Your task to perform on an android device: Go to accessibility settings Image 0: 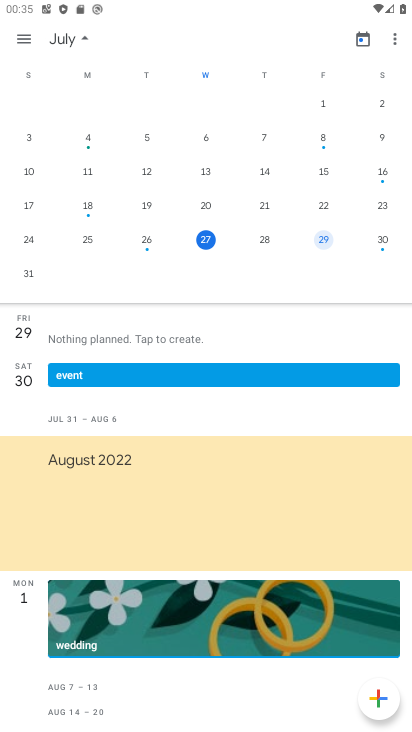
Step 0: press back button
Your task to perform on an android device: Go to accessibility settings Image 1: 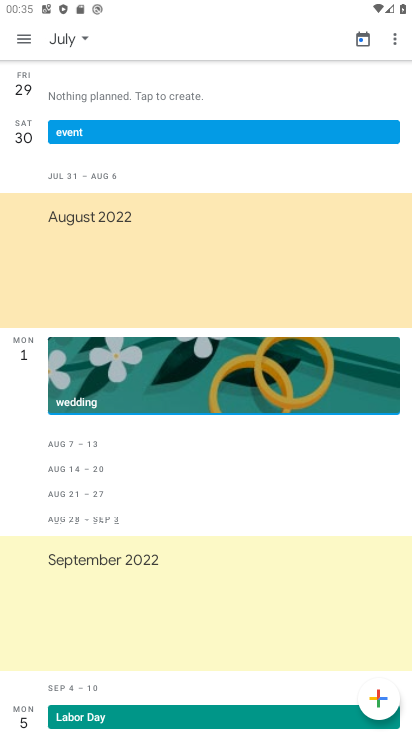
Step 1: press back button
Your task to perform on an android device: Go to accessibility settings Image 2: 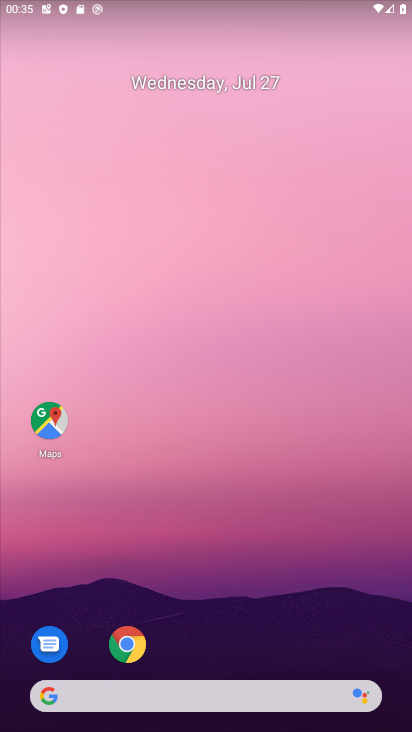
Step 2: drag from (248, 606) to (261, 174)
Your task to perform on an android device: Go to accessibility settings Image 3: 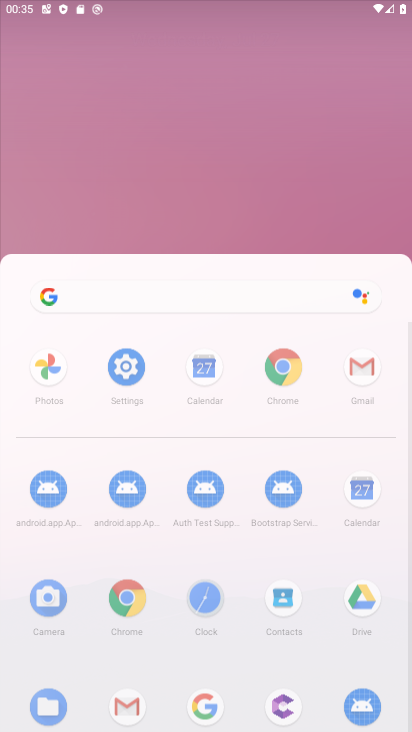
Step 3: drag from (290, 204) to (290, 80)
Your task to perform on an android device: Go to accessibility settings Image 4: 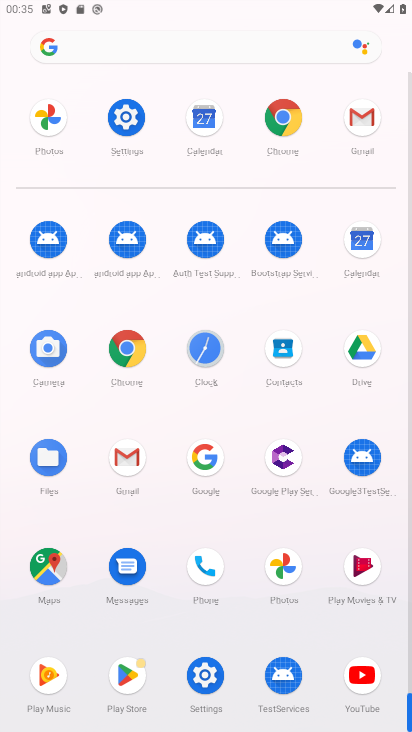
Step 4: click (277, 256)
Your task to perform on an android device: Go to accessibility settings Image 5: 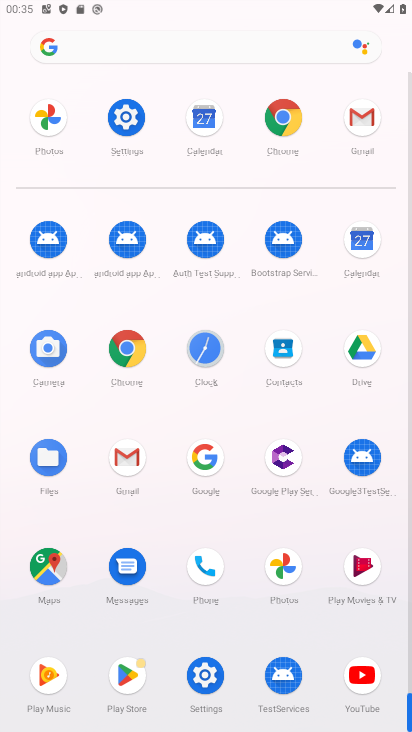
Step 5: click (210, 680)
Your task to perform on an android device: Go to accessibility settings Image 6: 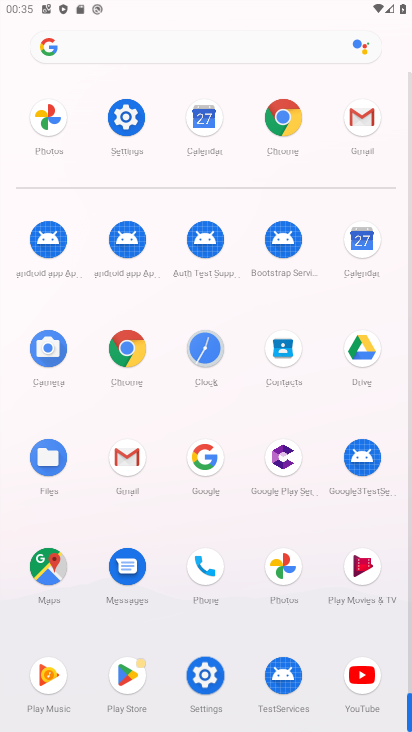
Step 6: click (204, 676)
Your task to perform on an android device: Go to accessibility settings Image 7: 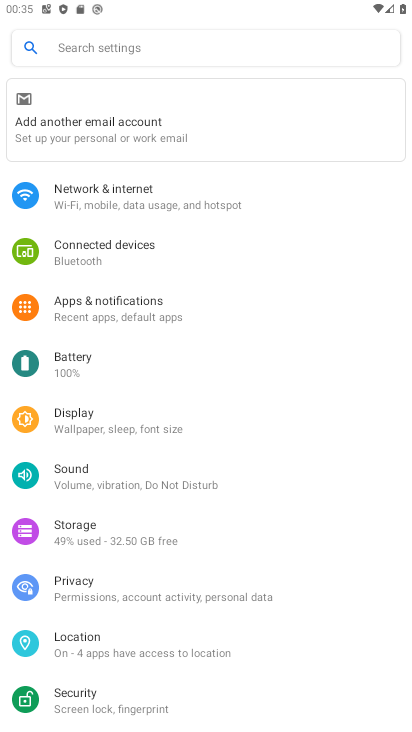
Step 7: drag from (76, 559) to (103, 255)
Your task to perform on an android device: Go to accessibility settings Image 8: 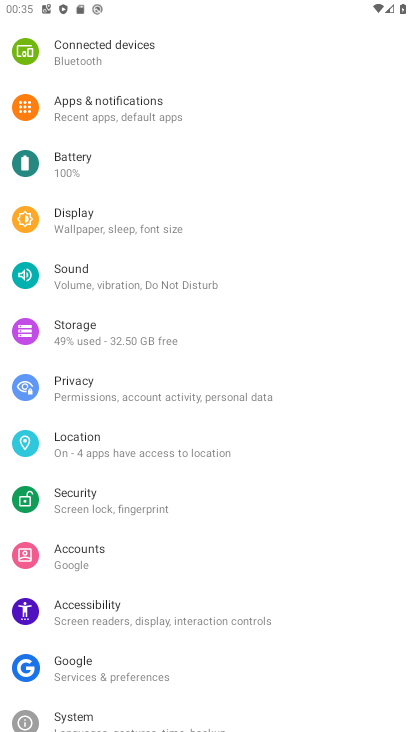
Step 8: drag from (142, 473) to (151, 226)
Your task to perform on an android device: Go to accessibility settings Image 9: 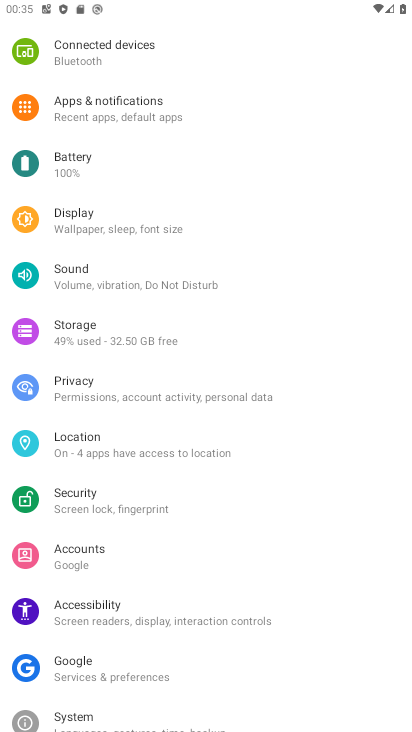
Step 9: drag from (151, 506) to (153, 298)
Your task to perform on an android device: Go to accessibility settings Image 10: 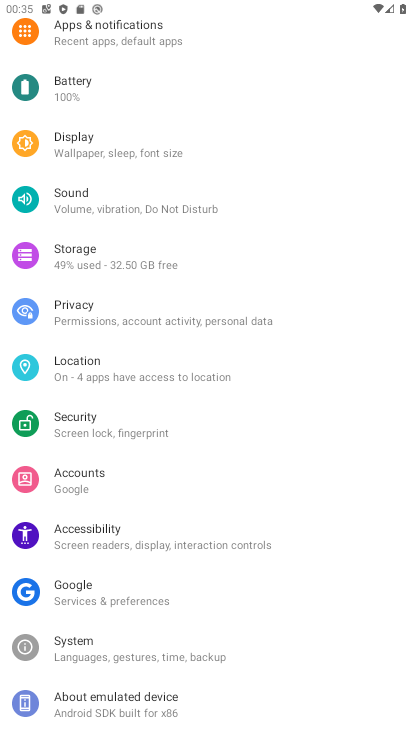
Step 10: click (72, 508)
Your task to perform on an android device: Go to accessibility settings Image 11: 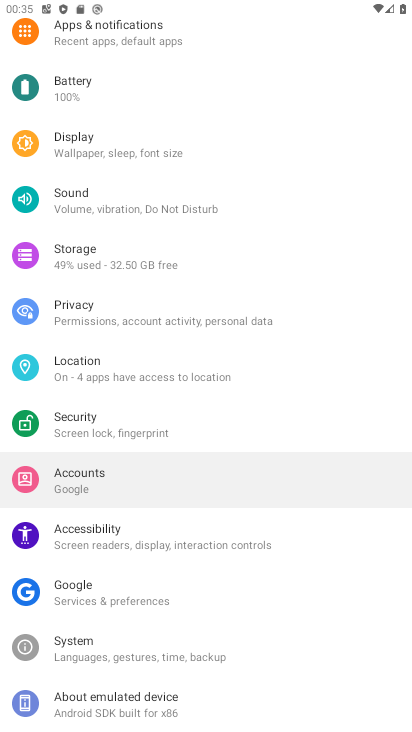
Step 11: click (74, 526)
Your task to perform on an android device: Go to accessibility settings Image 12: 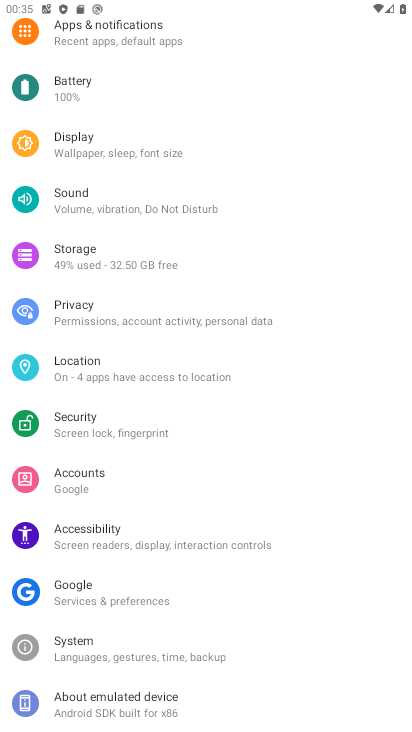
Step 12: click (75, 527)
Your task to perform on an android device: Go to accessibility settings Image 13: 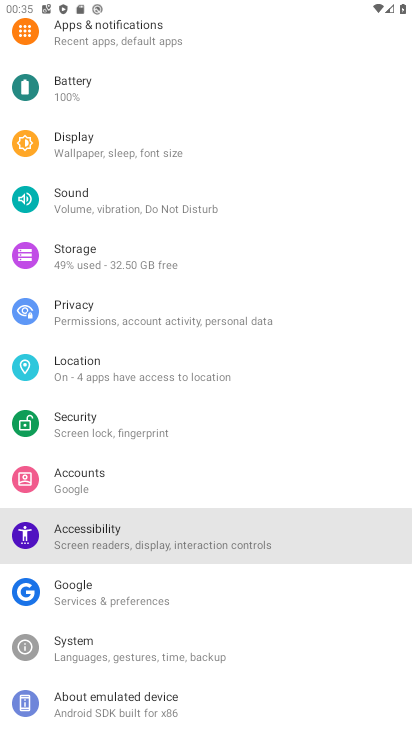
Step 13: click (77, 527)
Your task to perform on an android device: Go to accessibility settings Image 14: 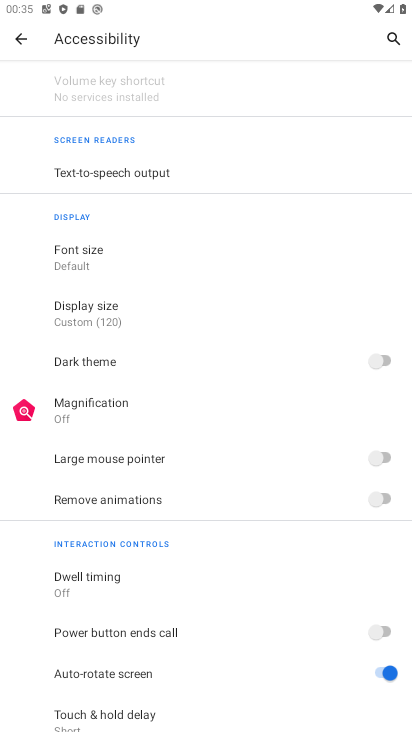
Step 14: task complete